Your task to perform on an android device: Empty the shopping cart on amazon.com. Add jbl flip 4 to the cart on amazon.com Image 0: 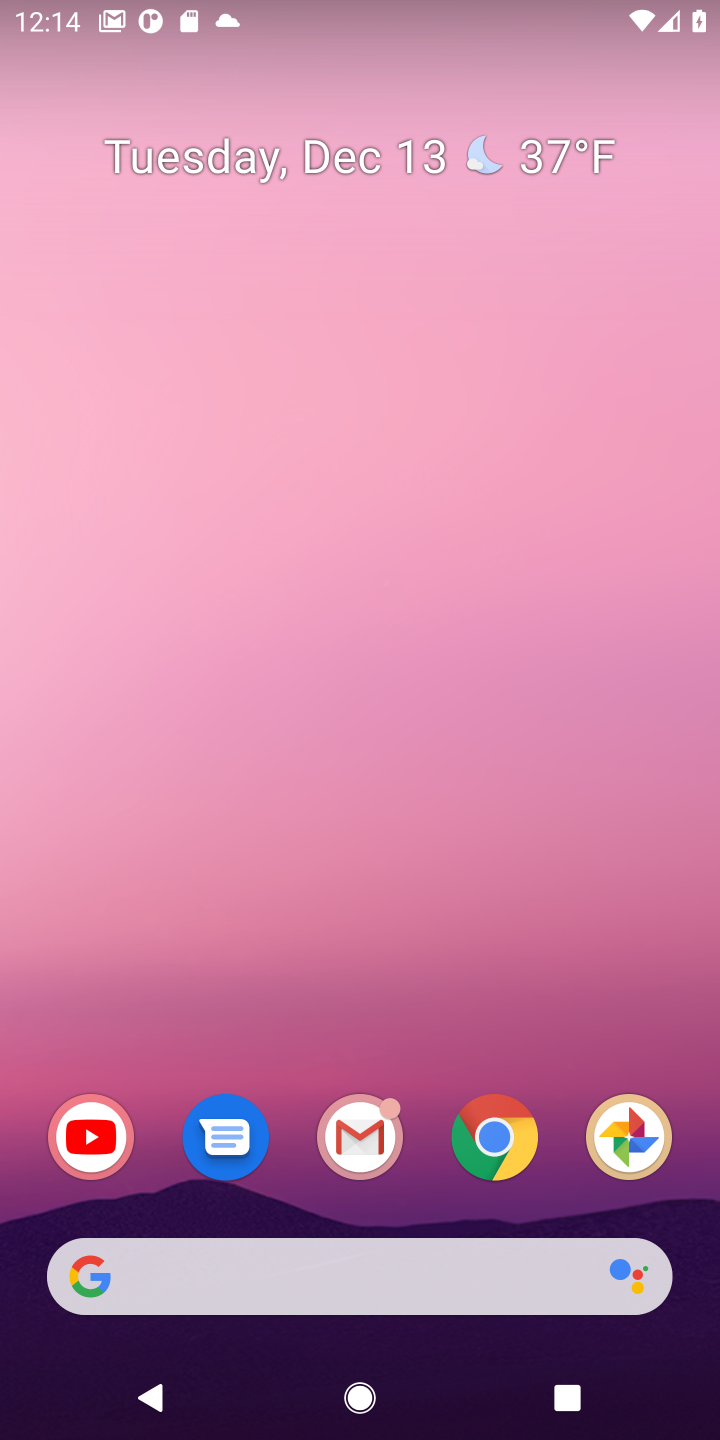
Step 0: click (498, 1246)
Your task to perform on an android device: Empty the shopping cart on amazon.com. Add jbl flip 4 to the cart on amazon.com Image 1: 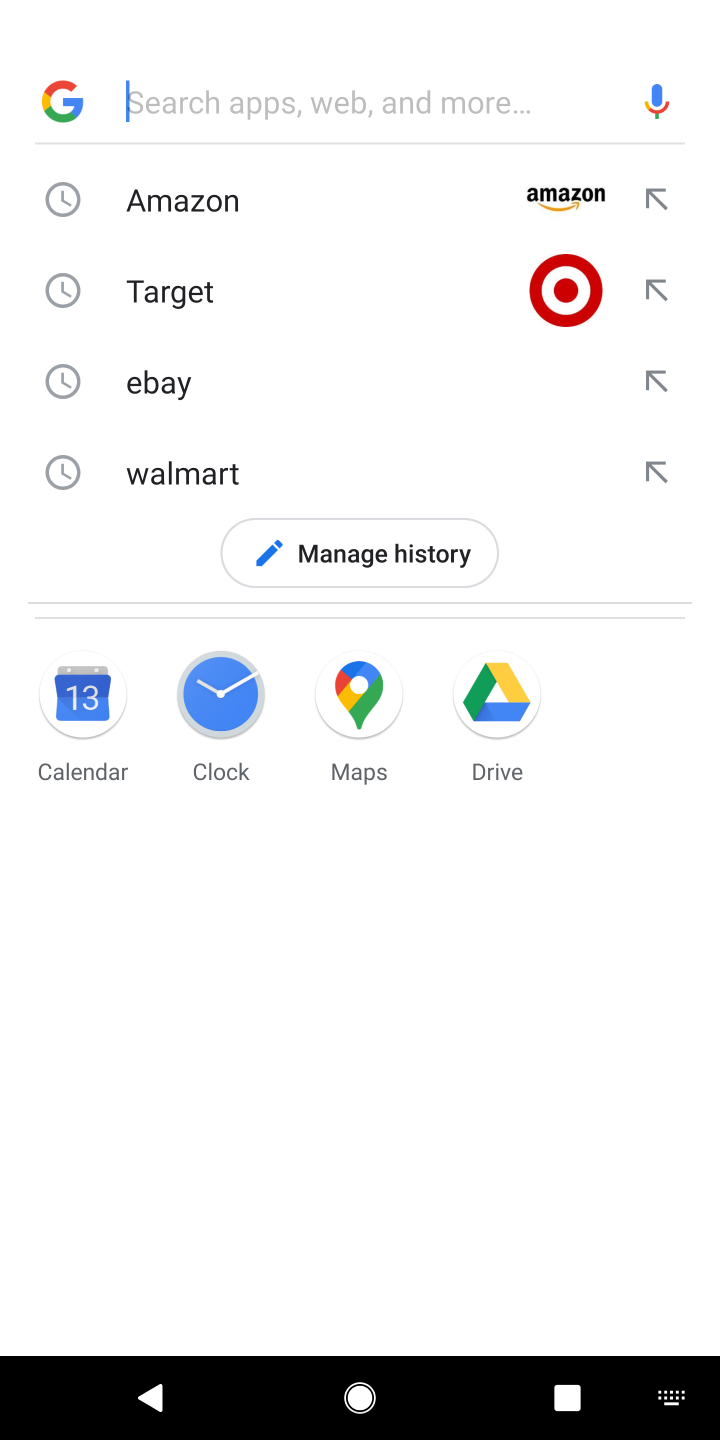
Step 1: click (241, 177)
Your task to perform on an android device: Empty the shopping cart on amazon.com. Add jbl flip 4 to the cart on amazon.com Image 2: 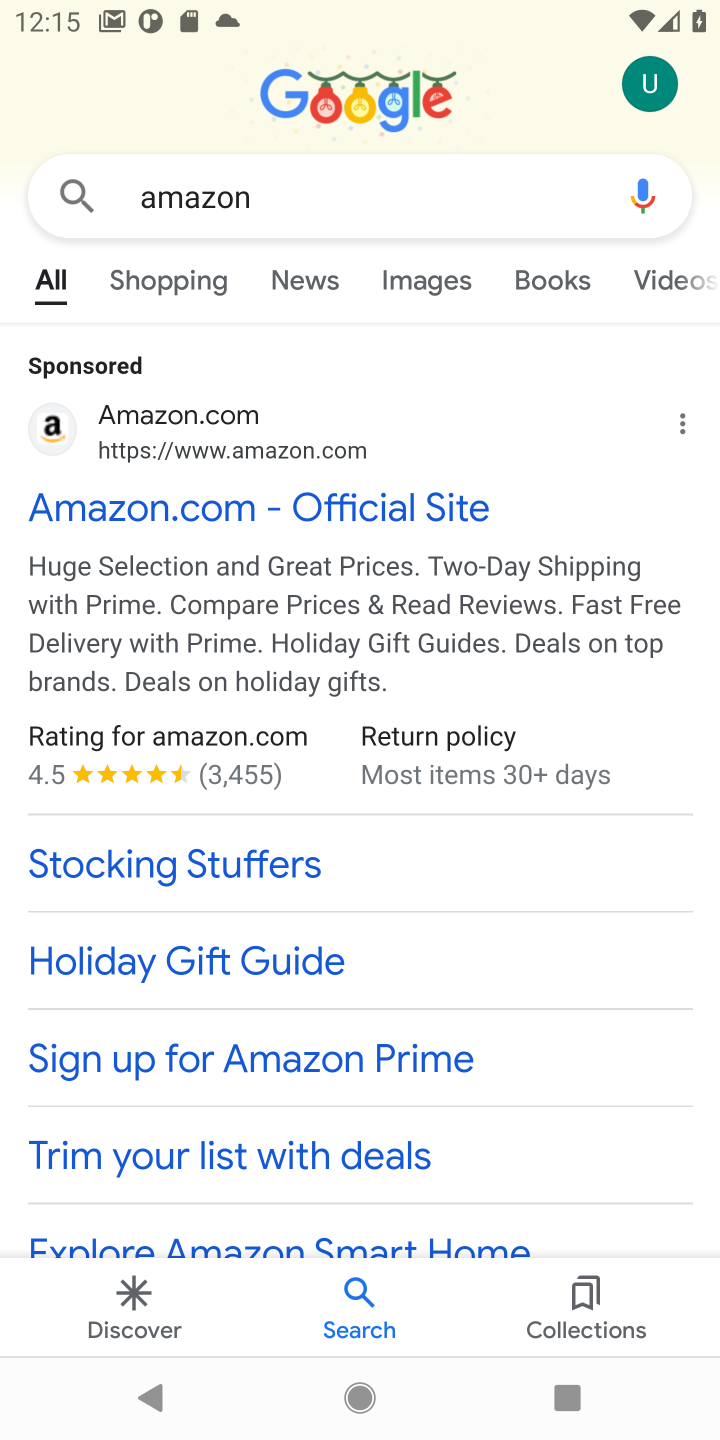
Step 2: click (205, 507)
Your task to perform on an android device: Empty the shopping cart on amazon.com. Add jbl flip 4 to the cart on amazon.com Image 3: 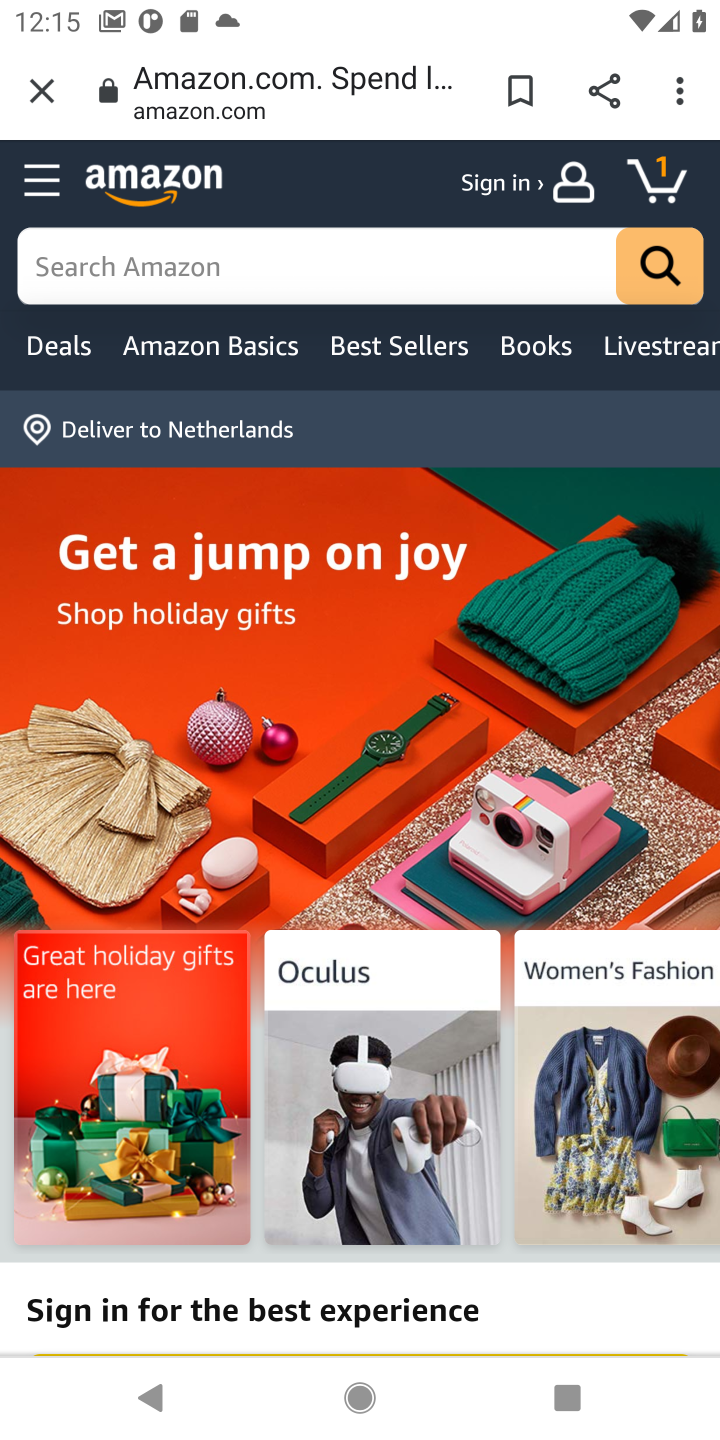
Step 3: click (636, 180)
Your task to perform on an android device: Empty the shopping cart on amazon.com. Add jbl flip 4 to the cart on amazon.com Image 4: 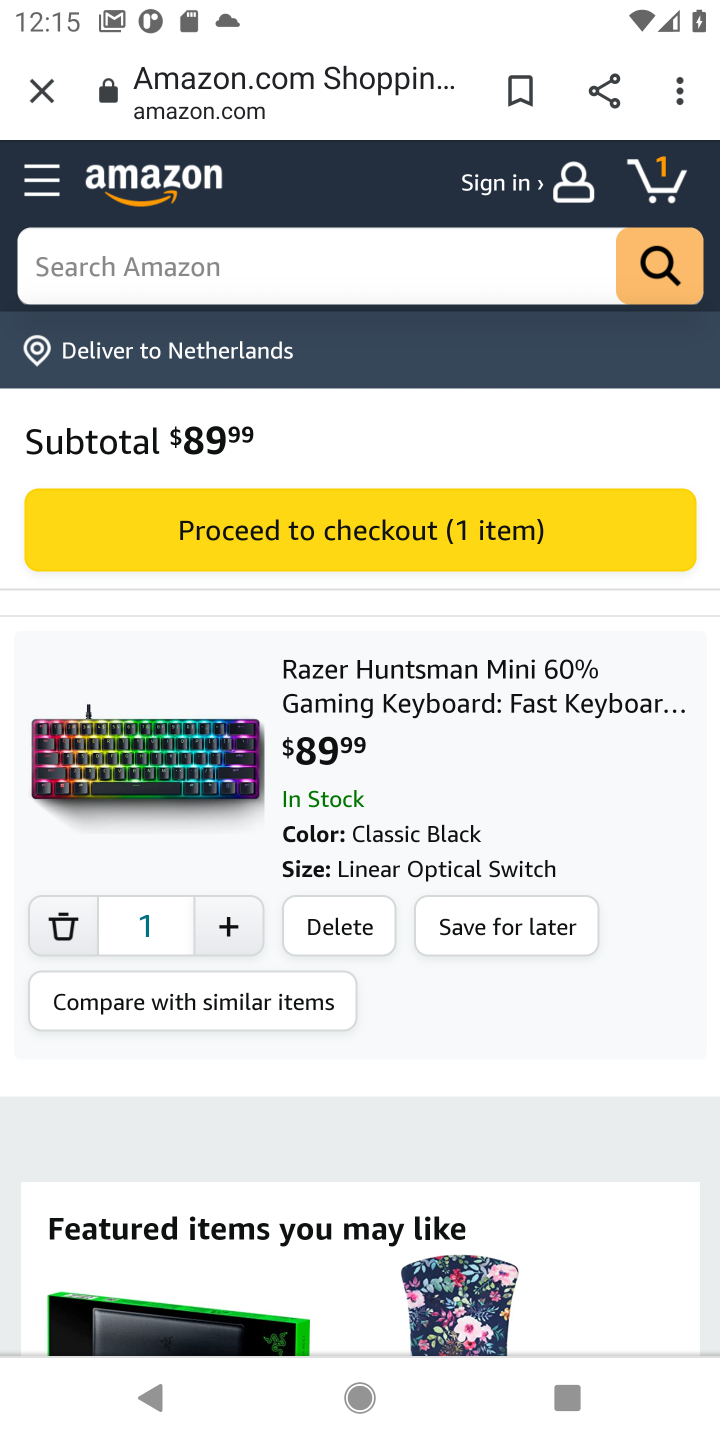
Step 4: click (50, 921)
Your task to perform on an android device: Empty the shopping cart on amazon.com. Add jbl flip 4 to the cart on amazon.com Image 5: 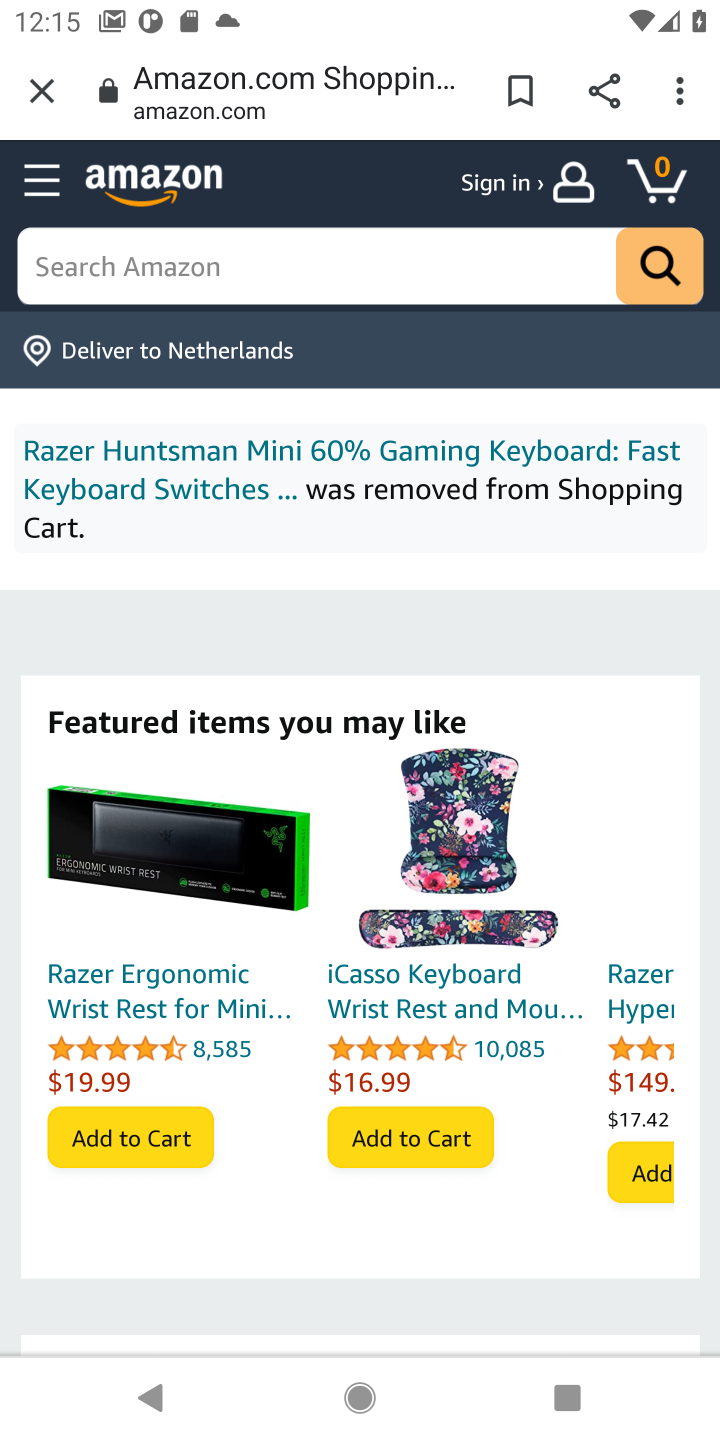
Step 5: click (355, 274)
Your task to perform on an android device: Empty the shopping cart on amazon.com. Add jbl flip 4 to the cart on amazon.com Image 6: 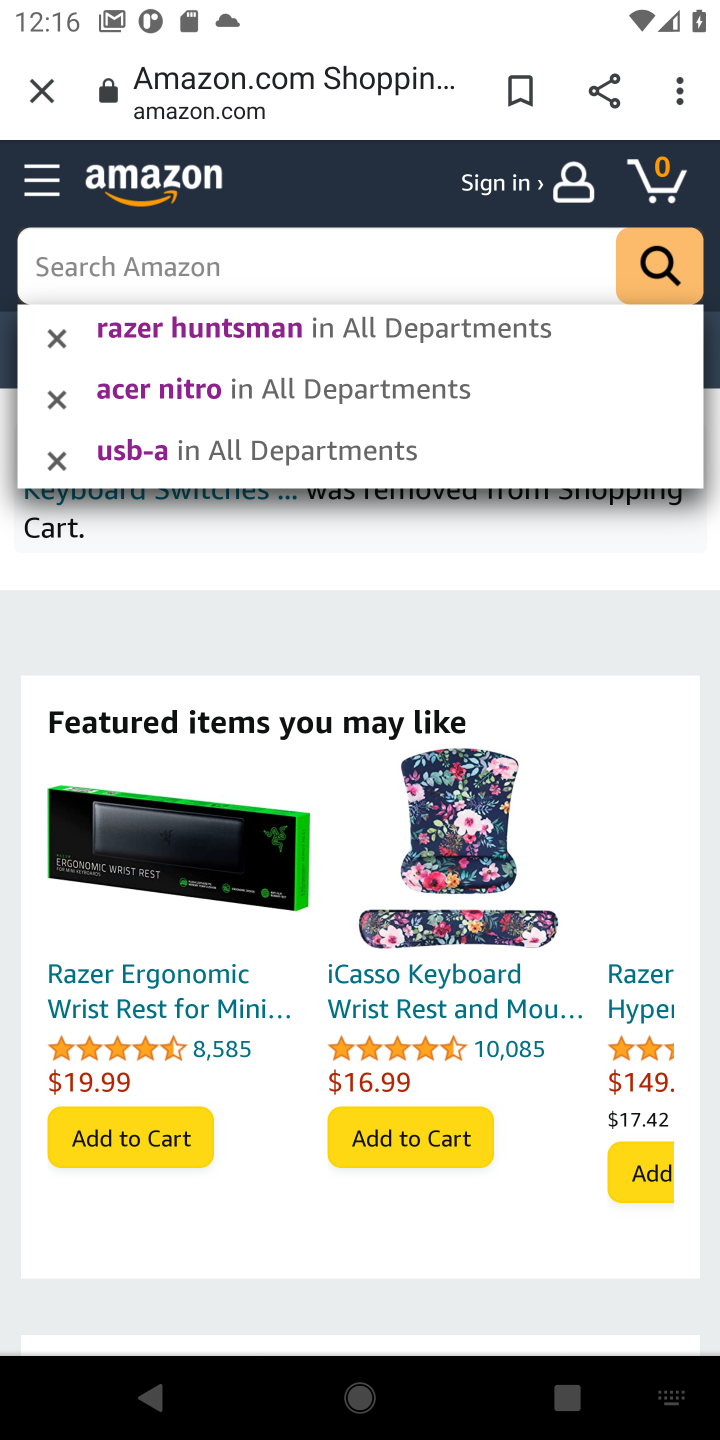
Step 6: type "jbl flip 4"
Your task to perform on an android device: Empty the shopping cart on amazon.com. Add jbl flip 4 to the cart on amazon.com Image 7: 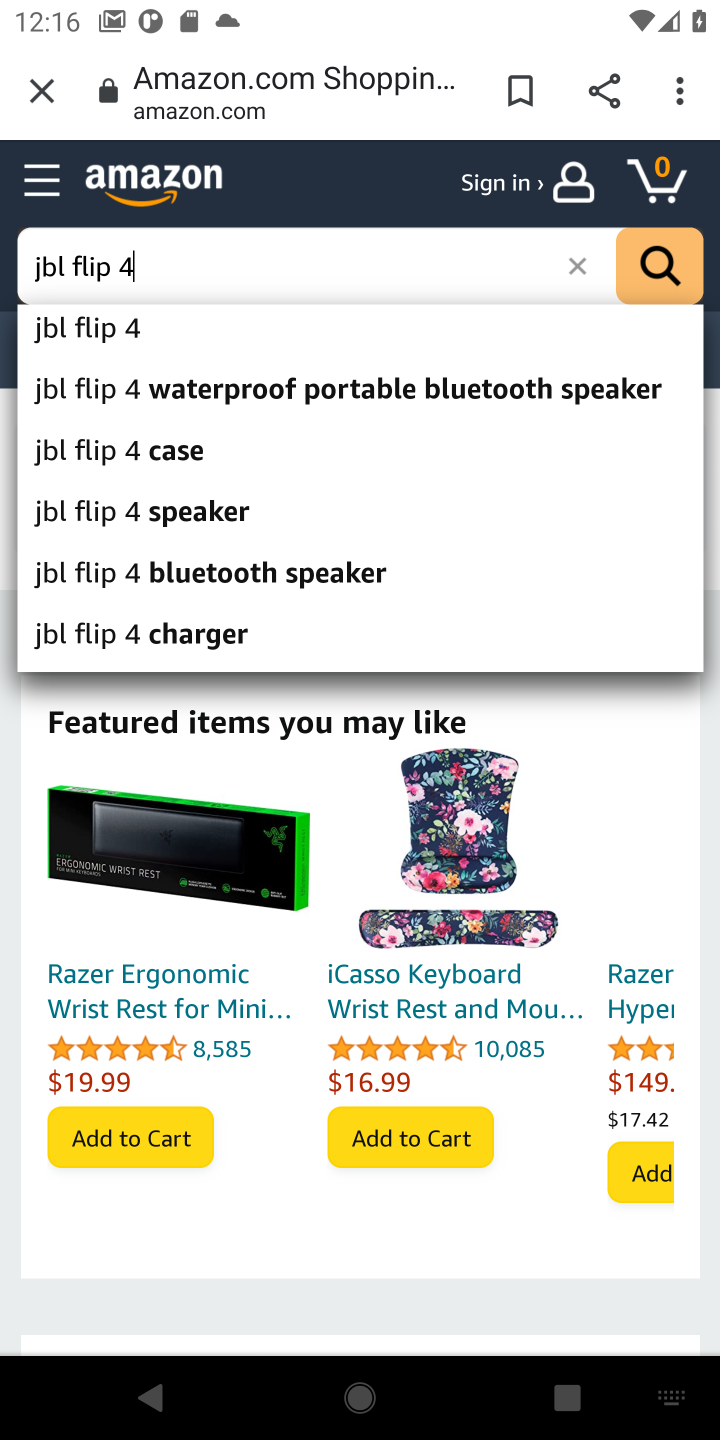
Step 7: click (278, 323)
Your task to perform on an android device: Empty the shopping cart on amazon.com. Add jbl flip 4 to the cart on amazon.com Image 8: 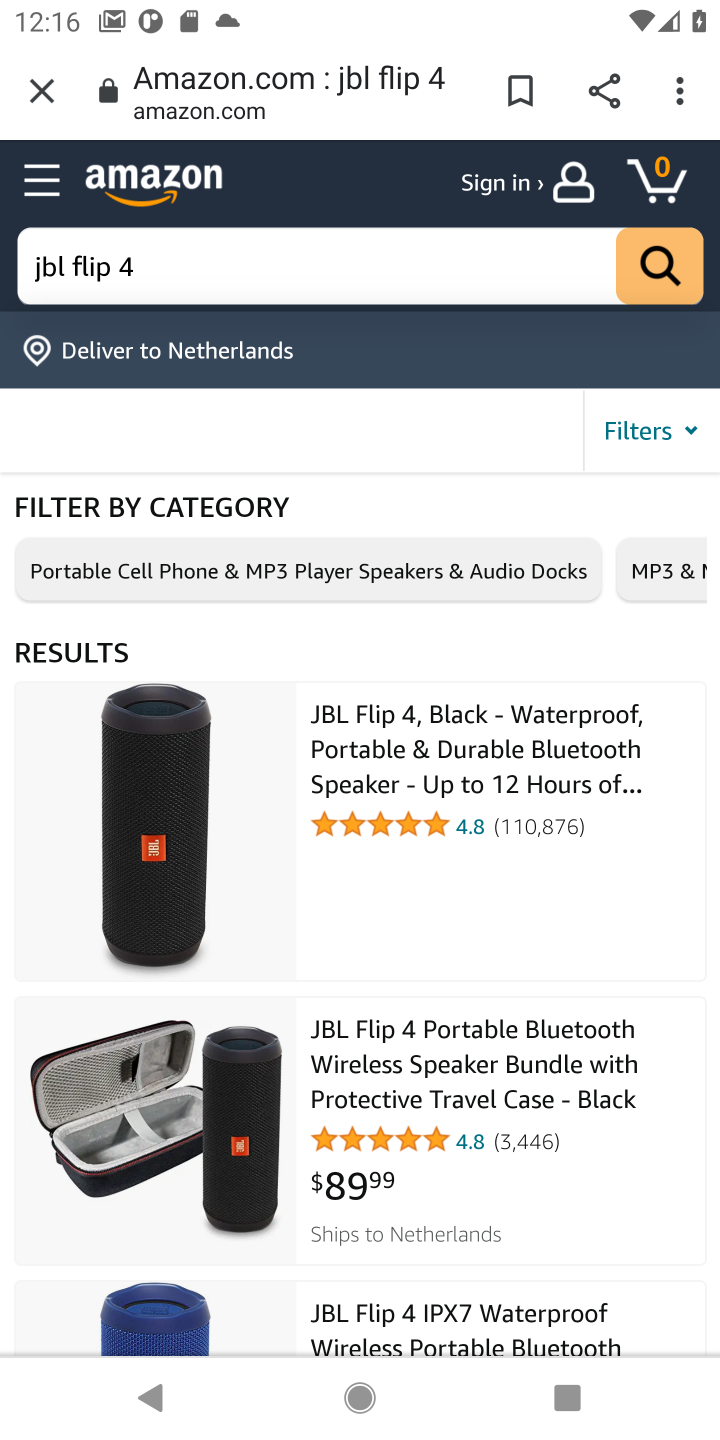
Step 8: click (348, 768)
Your task to perform on an android device: Empty the shopping cart on amazon.com. Add jbl flip 4 to the cart on amazon.com Image 9: 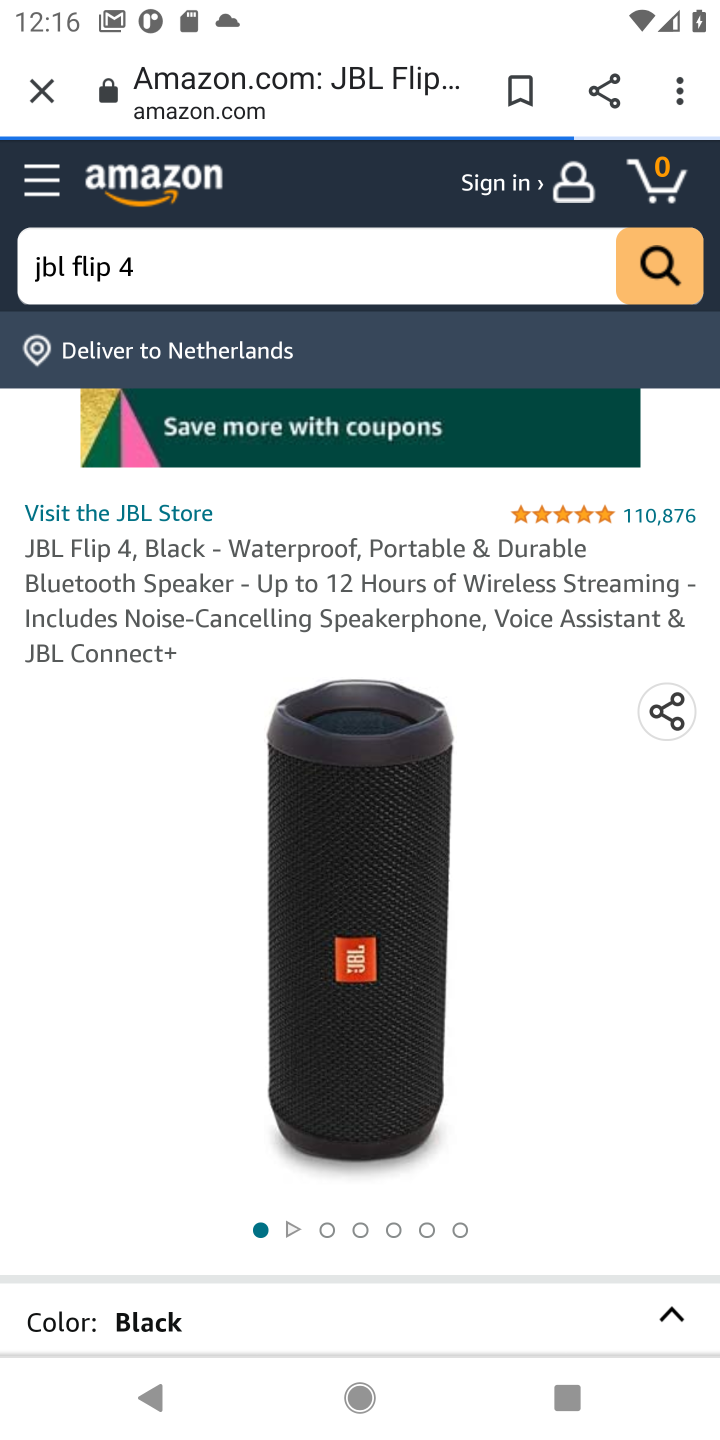
Step 9: drag from (600, 1177) to (579, 798)
Your task to perform on an android device: Empty the shopping cart on amazon.com. Add jbl flip 4 to the cart on amazon.com Image 10: 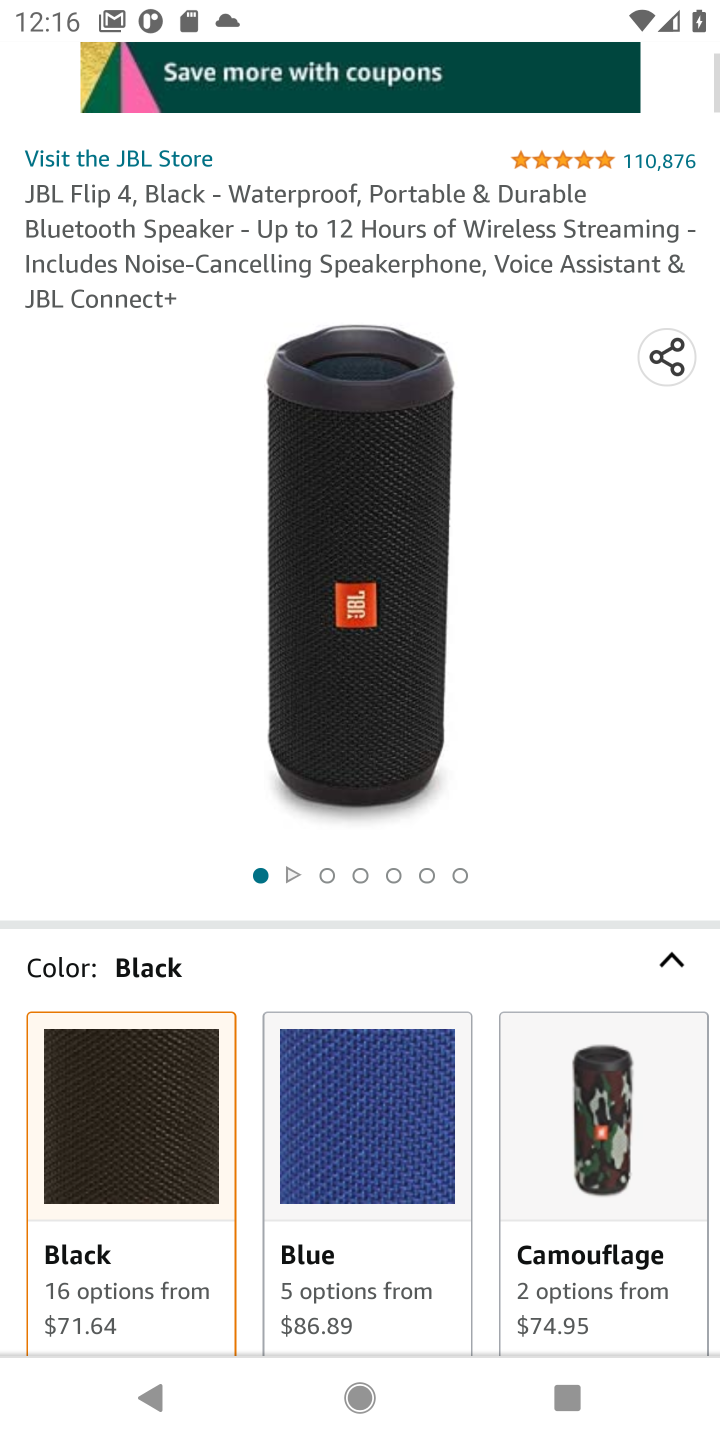
Step 10: drag from (476, 1066) to (519, 652)
Your task to perform on an android device: Empty the shopping cart on amazon.com. Add jbl flip 4 to the cart on amazon.com Image 11: 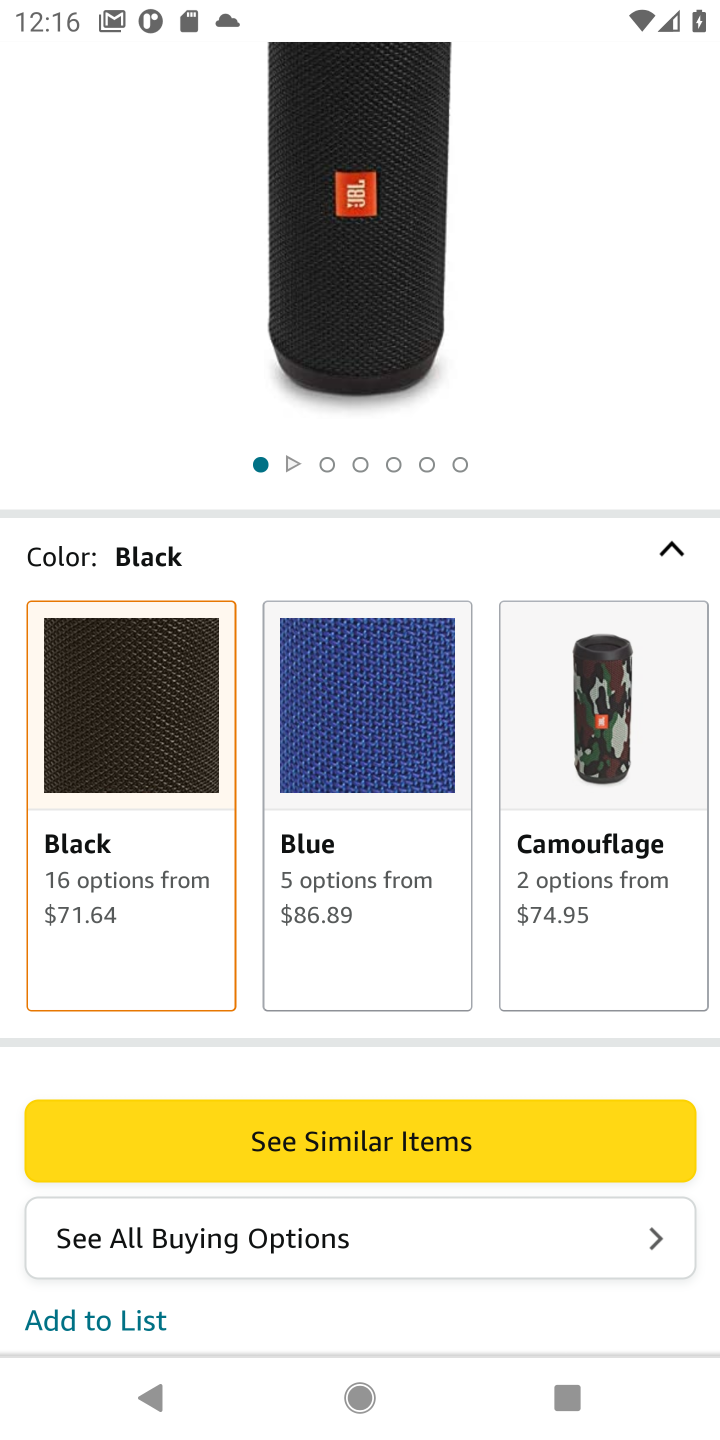
Step 11: drag from (459, 1302) to (449, 288)
Your task to perform on an android device: Empty the shopping cart on amazon.com. Add jbl flip 4 to the cart on amazon.com Image 12: 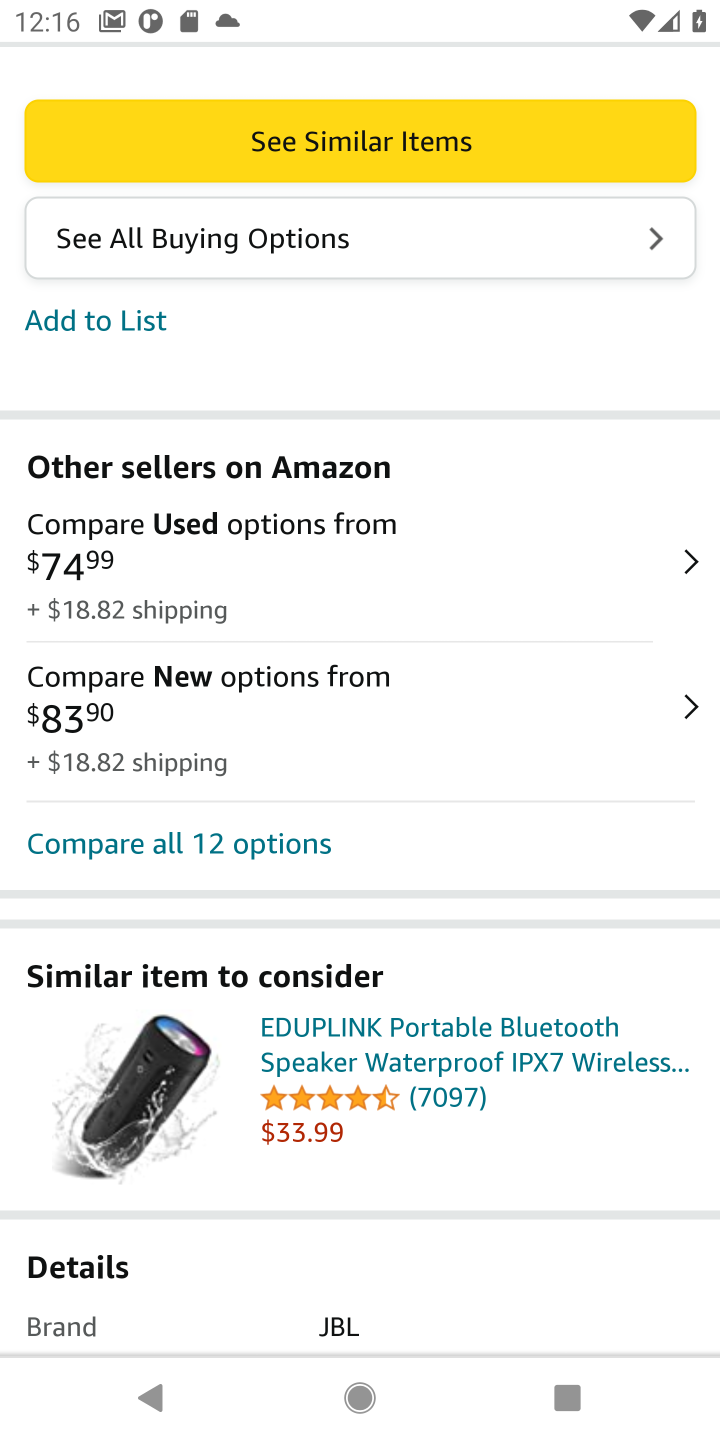
Step 12: click (431, 134)
Your task to perform on an android device: Empty the shopping cart on amazon.com. Add jbl flip 4 to the cart on amazon.com Image 13: 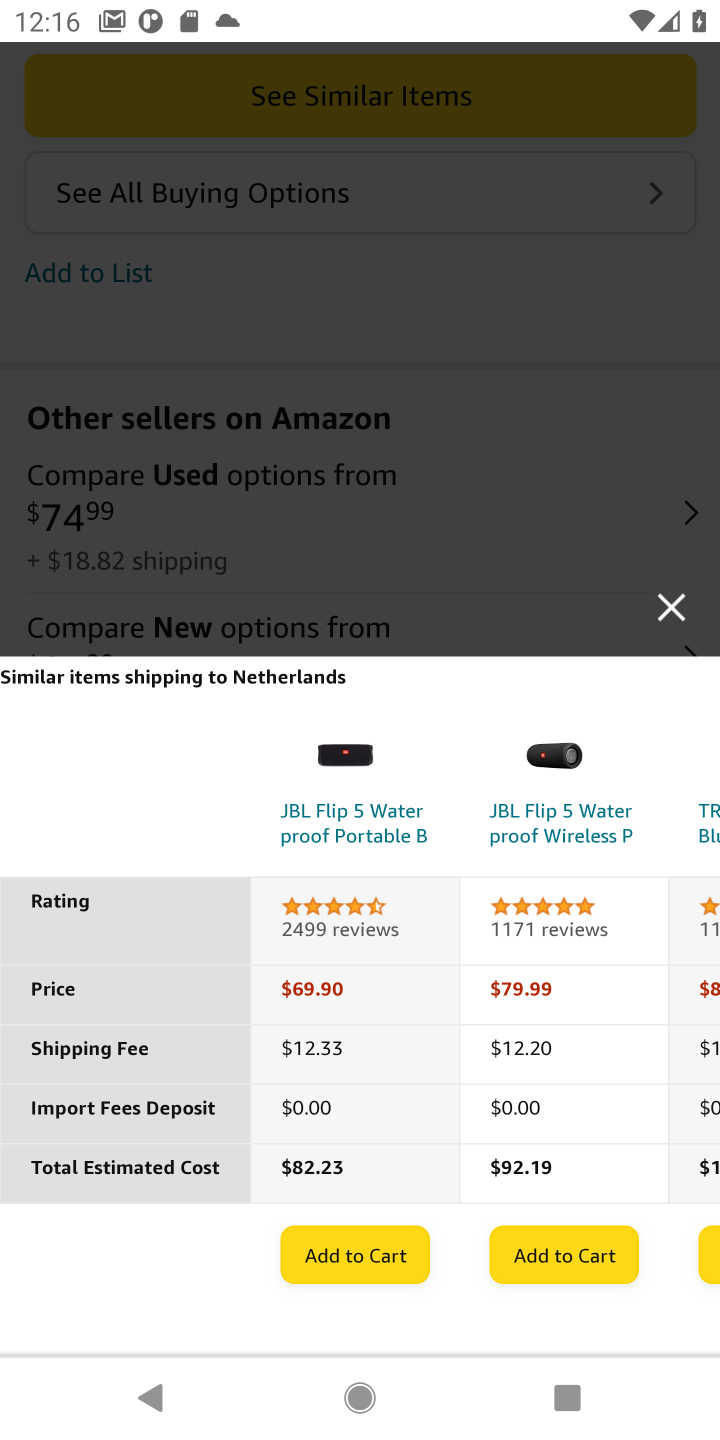
Step 13: click (358, 1246)
Your task to perform on an android device: Empty the shopping cart on amazon.com. Add jbl flip 4 to the cart on amazon.com Image 14: 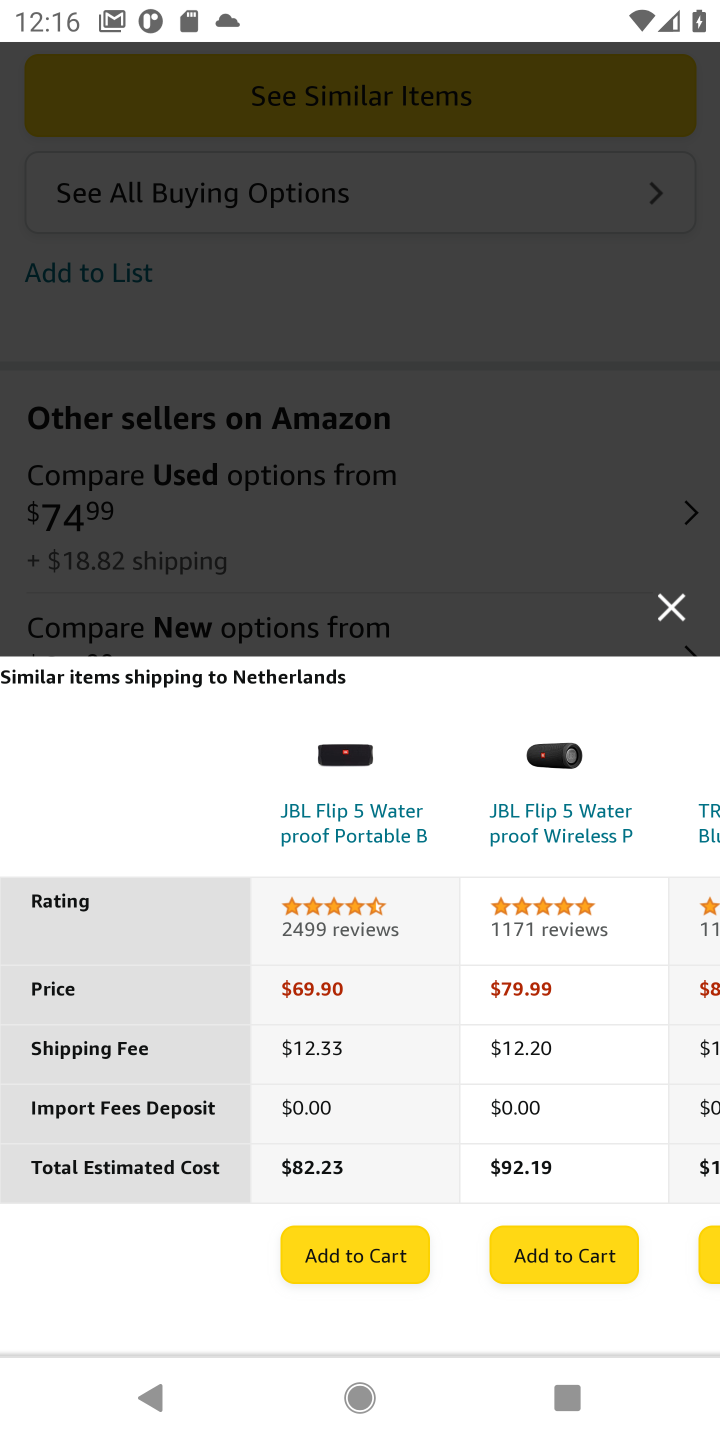
Step 14: task complete